Your task to perform on an android device: star an email in the gmail app Image 0: 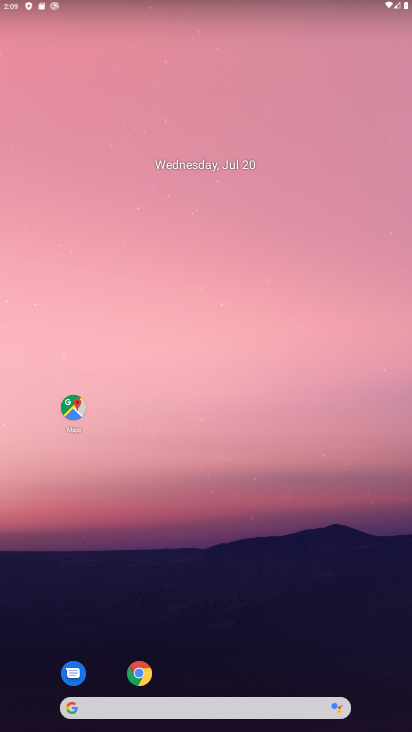
Step 0: drag from (192, 685) to (117, 100)
Your task to perform on an android device: star an email in the gmail app Image 1: 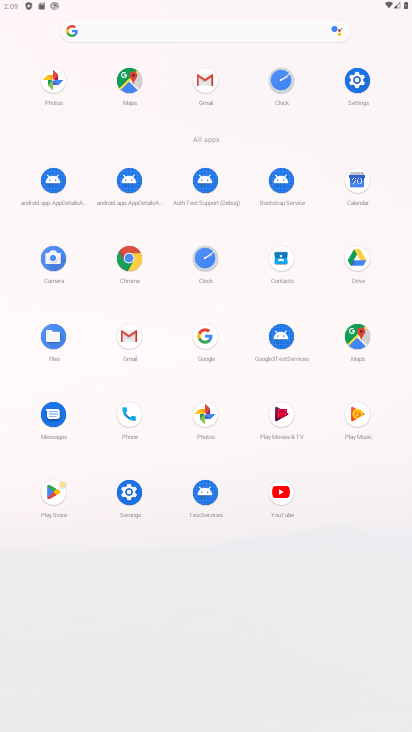
Step 1: click (135, 336)
Your task to perform on an android device: star an email in the gmail app Image 2: 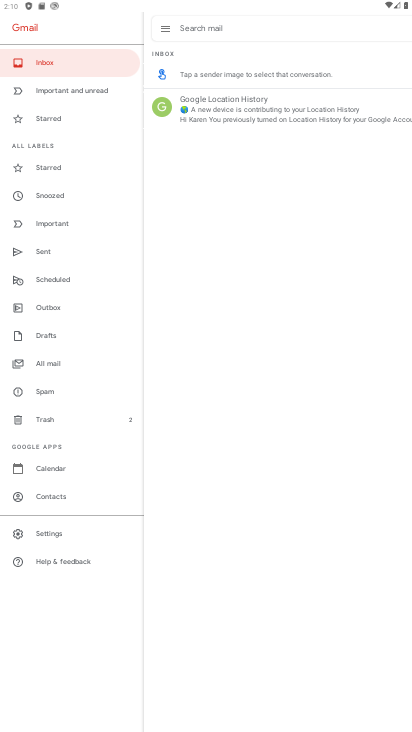
Step 2: click (299, 106)
Your task to perform on an android device: star an email in the gmail app Image 3: 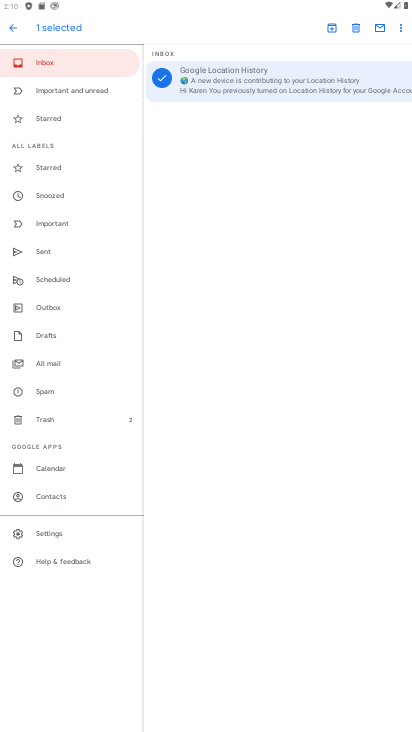
Step 3: click (397, 23)
Your task to perform on an android device: star an email in the gmail app Image 4: 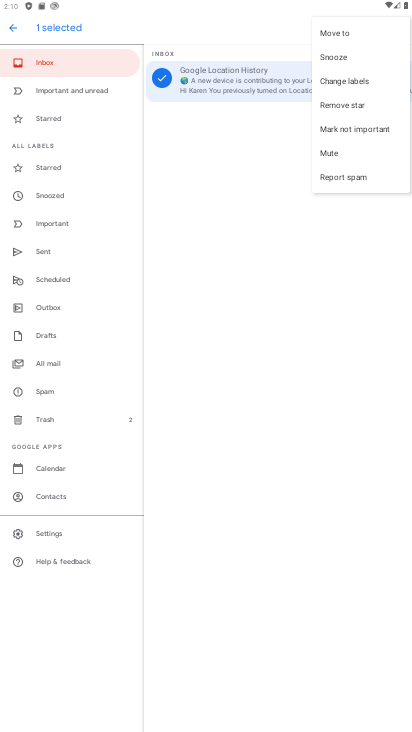
Step 4: click (376, 250)
Your task to perform on an android device: star an email in the gmail app Image 5: 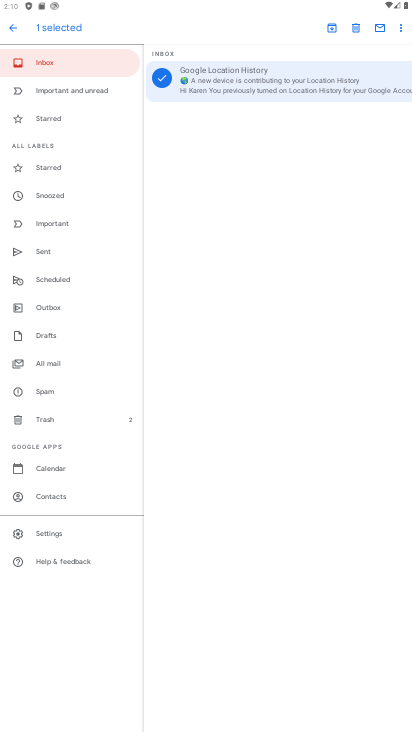
Step 5: task complete